Your task to perform on an android device: stop showing notifications on the lock screen Image 0: 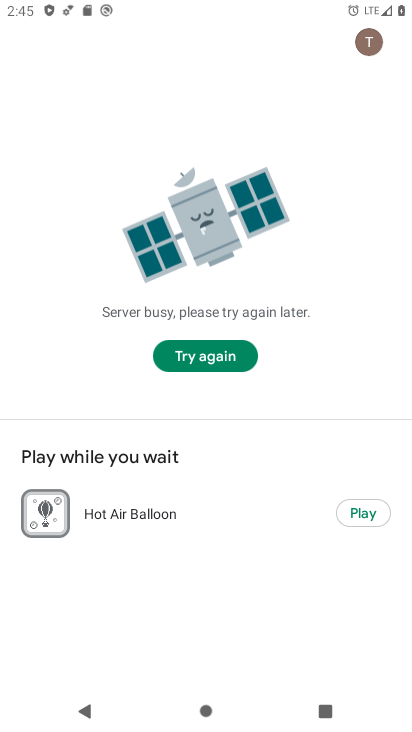
Step 0: press back button
Your task to perform on an android device: stop showing notifications on the lock screen Image 1: 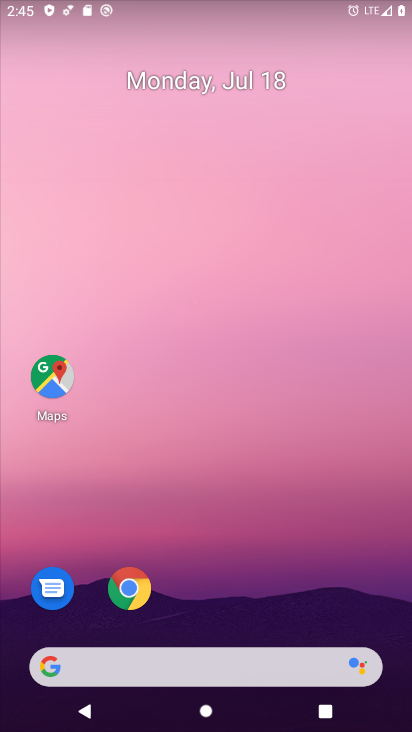
Step 1: drag from (198, 619) to (329, 65)
Your task to perform on an android device: stop showing notifications on the lock screen Image 2: 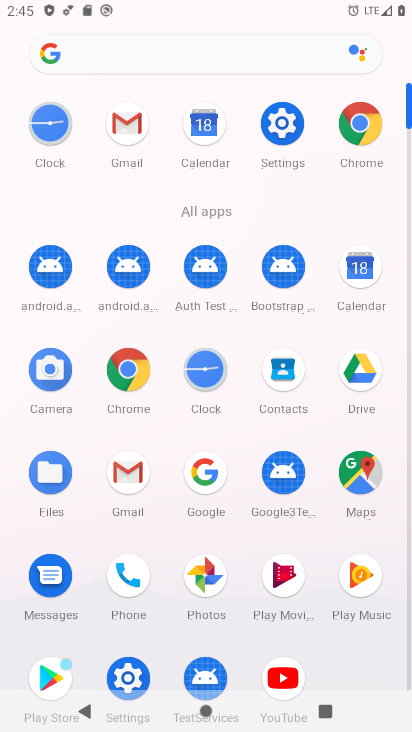
Step 2: click (275, 139)
Your task to perform on an android device: stop showing notifications on the lock screen Image 3: 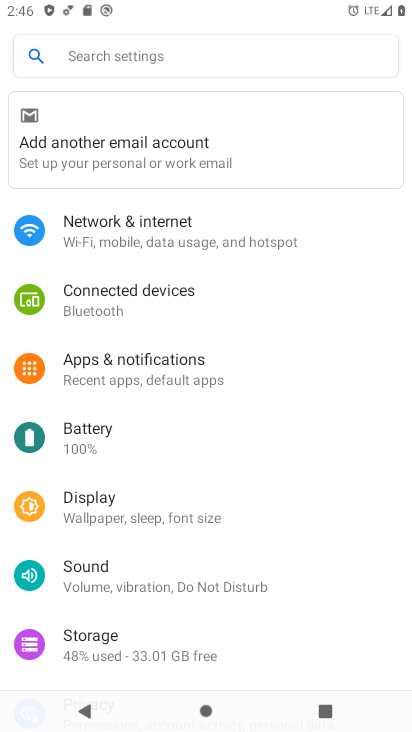
Step 3: click (141, 361)
Your task to perform on an android device: stop showing notifications on the lock screen Image 4: 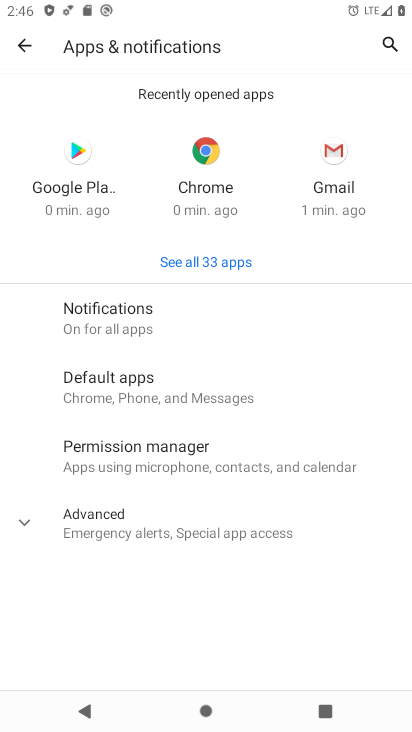
Step 4: click (159, 320)
Your task to perform on an android device: stop showing notifications on the lock screen Image 5: 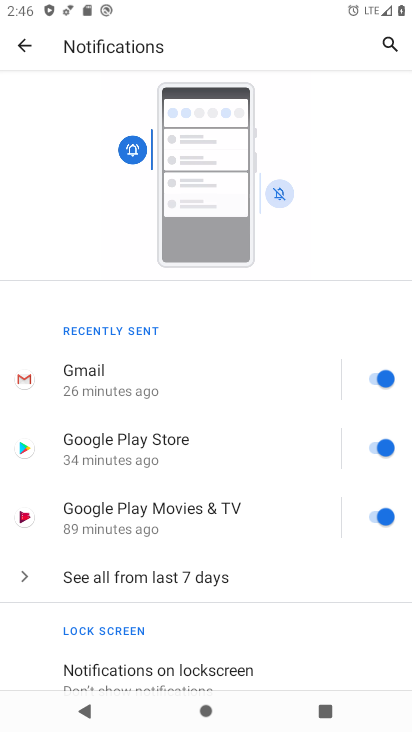
Step 5: click (117, 663)
Your task to perform on an android device: stop showing notifications on the lock screen Image 6: 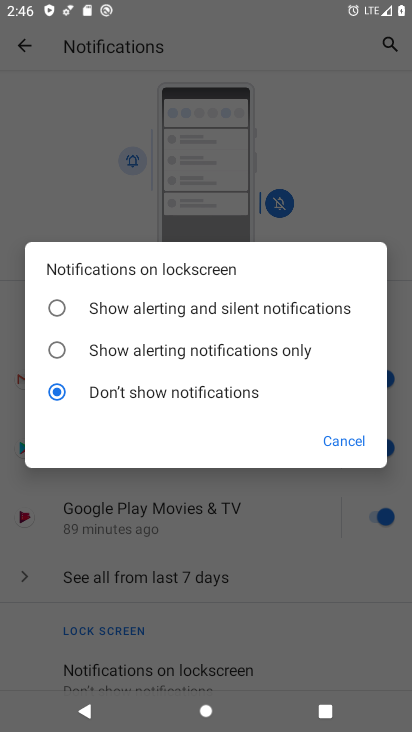
Step 6: task complete